Your task to perform on an android device: install app "Pluto TV - Live TV and Movies" Image 0: 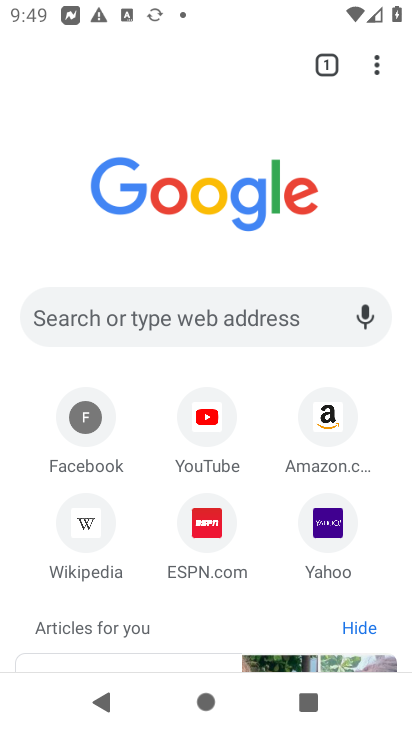
Step 0: press home button
Your task to perform on an android device: install app "Pluto TV - Live TV and Movies" Image 1: 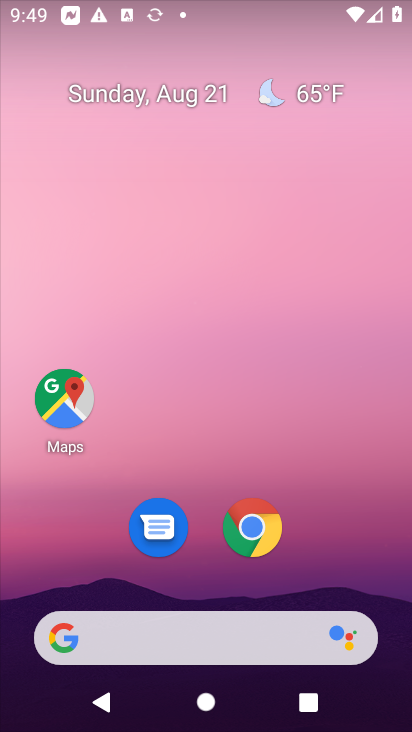
Step 1: drag from (209, 588) to (210, 236)
Your task to perform on an android device: install app "Pluto TV - Live TV and Movies" Image 2: 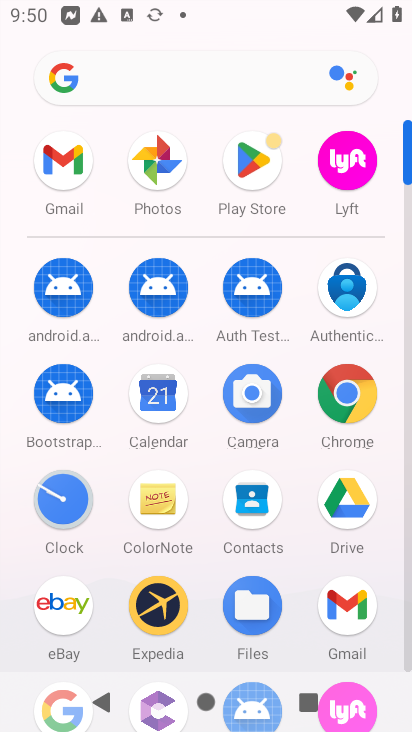
Step 2: click (251, 168)
Your task to perform on an android device: install app "Pluto TV - Live TV and Movies" Image 3: 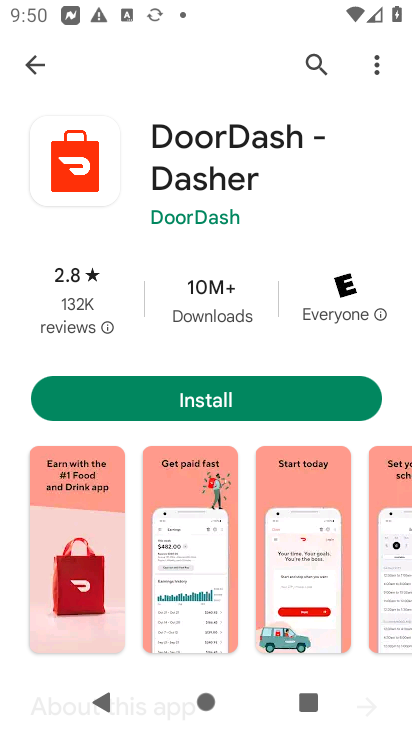
Step 3: click (44, 56)
Your task to perform on an android device: install app "Pluto TV - Live TV and Movies" Image 4: 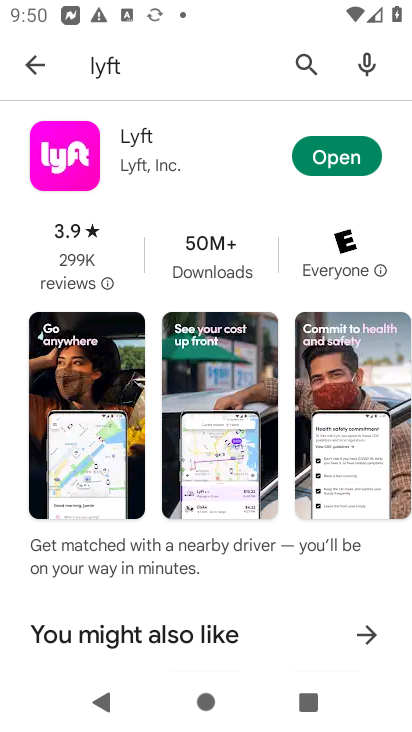
Step 4: click (130, 64)
Your task to perform on an android device: install app "Pluto TV - Live TV and Movies" Image 5: 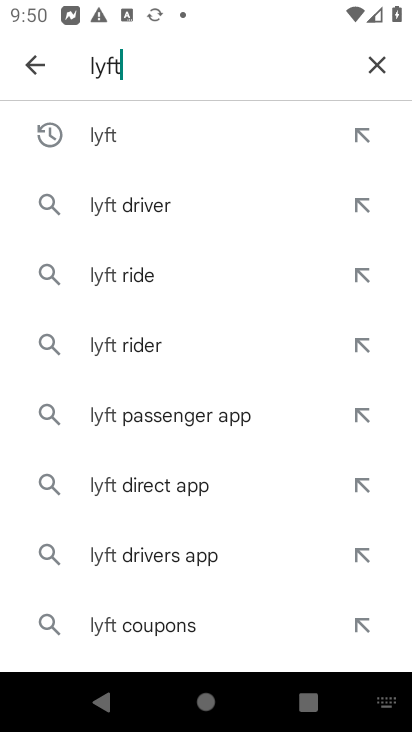
Step 5: click (381, 59)
Your task to perform on an android device: install app "Pluto TV - Live TV and Movies" Image 6: 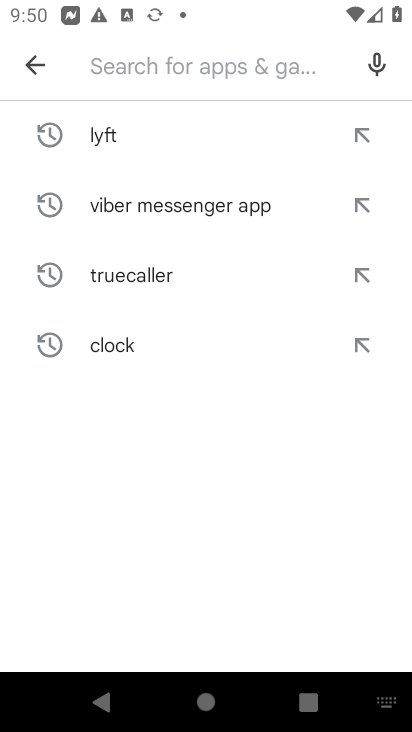
Step 6: type "PLuto TV"
Your task to perform on an android device: install app "Pluto TV - Live TV and Movies" Image 7: 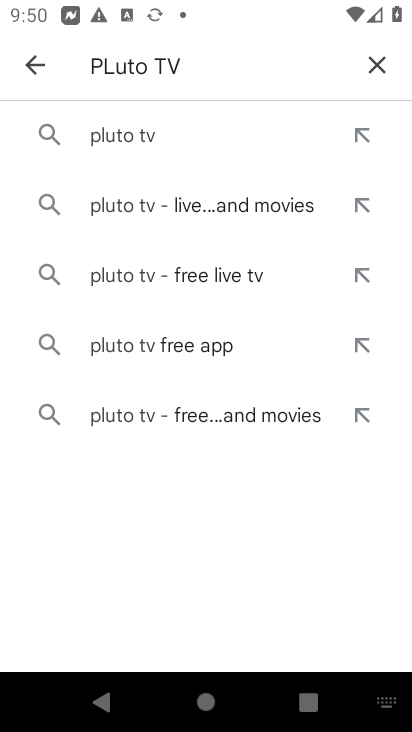
Step 7: click (159, 150)
Your task to perform on an android device: install app "Pluto TV - Live TV and Movies" Image 8: 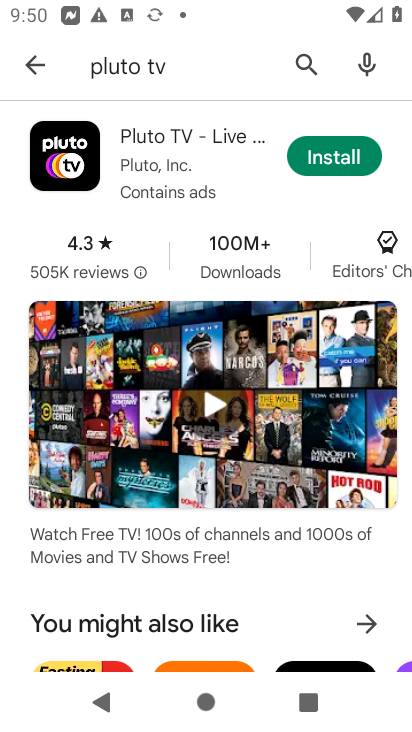
Step 8: click (350, 151)
Your task to perform on an android device: install app "Pluto TV - Live TV and Movies" Image 9: 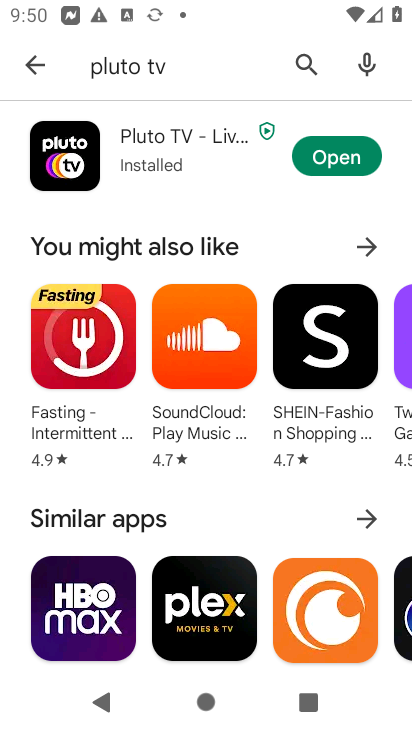
Step 9: task complete